Your task to perform on an android device: move an email to a new category in the gmail app Image 0: 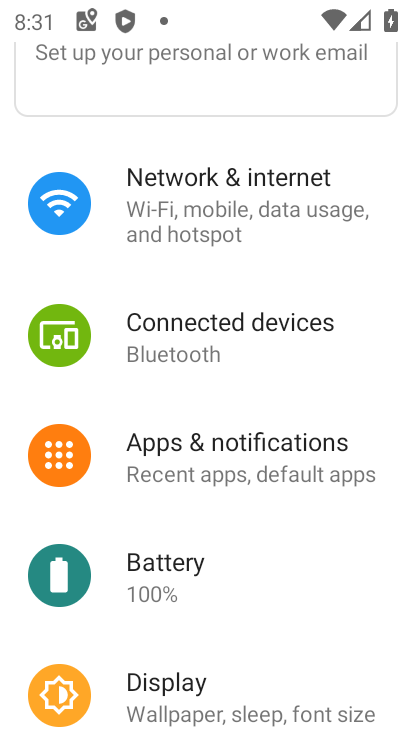
Step 0: press home button
Your task to perform on an android device: move an email to a new category in the gmail app Image 1: 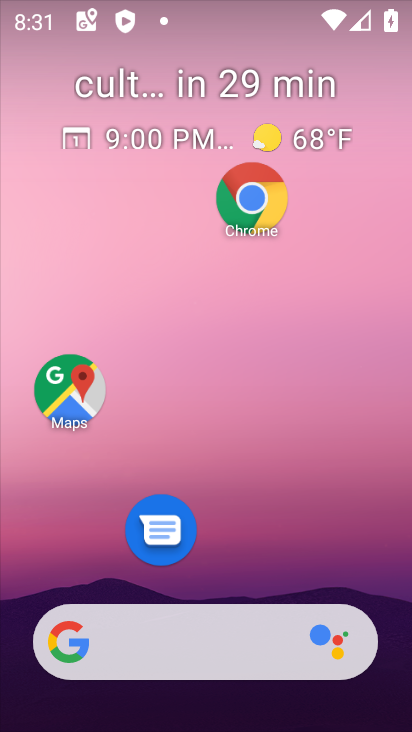
Step 1: drag from (236, 574) to (216, 211)
Your task to perform on an android device: move an email to a new category in the gmail app Image 2: 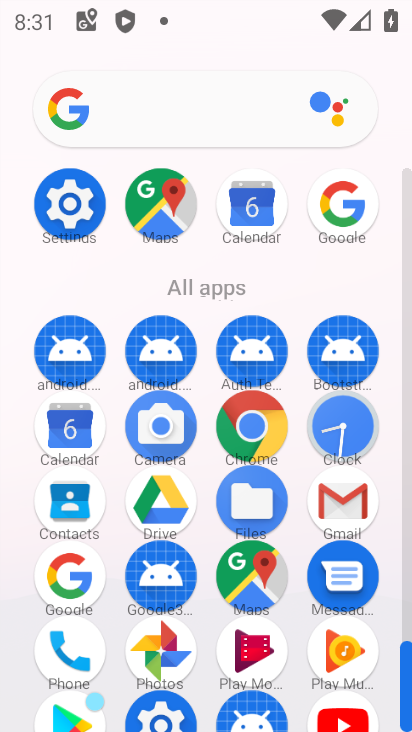
Step 2: click (333, 510)
Your task to perform on an android device: move an email to a new category in the gmail app Image 3: 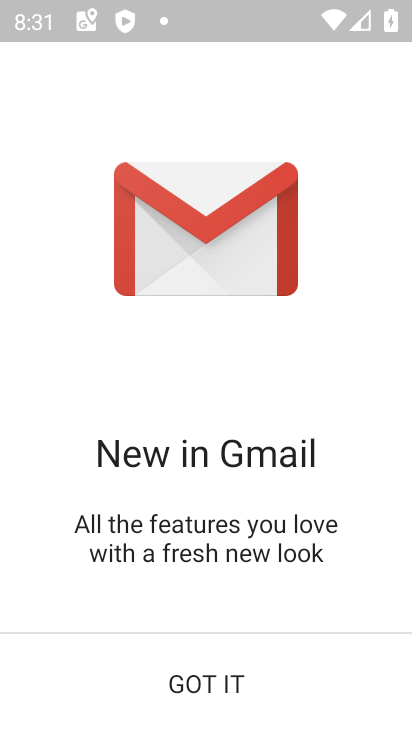
Step 3: click (249, 657)
Your task to perform on an android device: move an email to a new category in the gmail app Image 4: 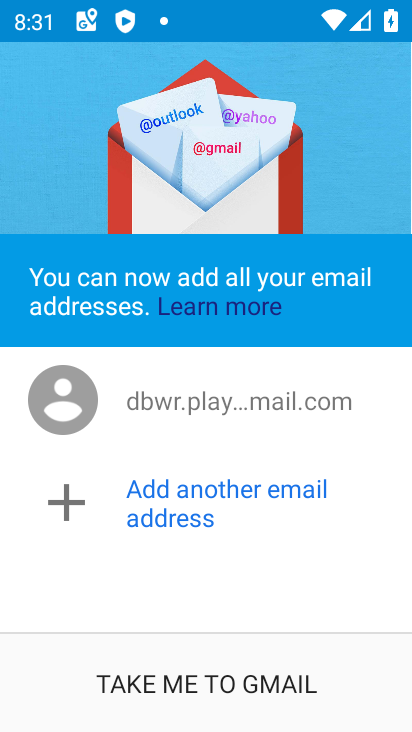
Step 4: click (249, 657)
Your task to perform on an android device: move an email to a new category in the gmail app Image 5: 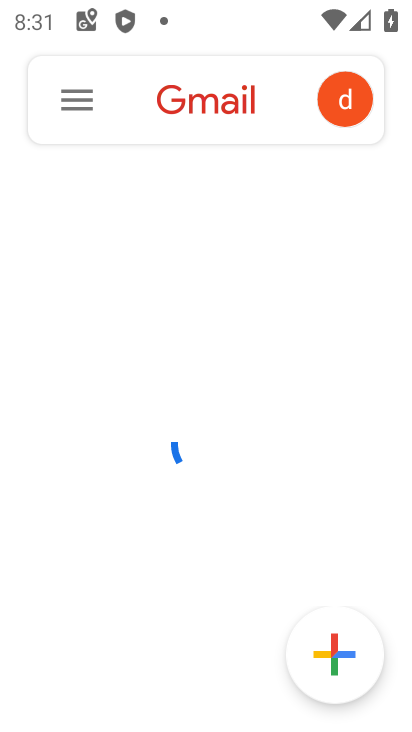
Step 5: click (68, 98)
Your task to perform on an android device: move an email to a new category in the gmail app Image 6: 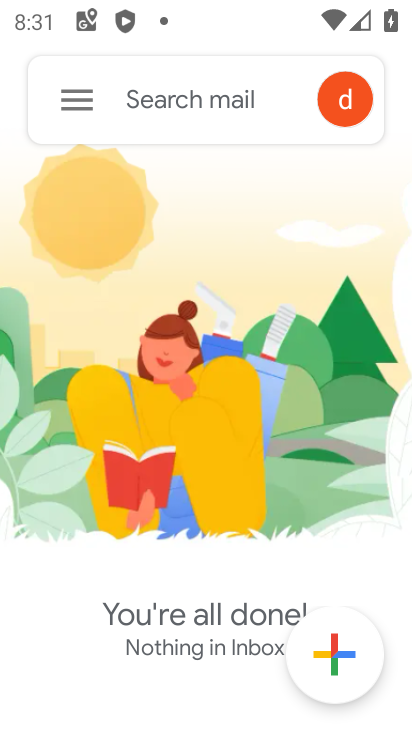
Step 6: click (85, 109)
Your task to perform on an android device: move an email to a new category in the gmail app Image 7: 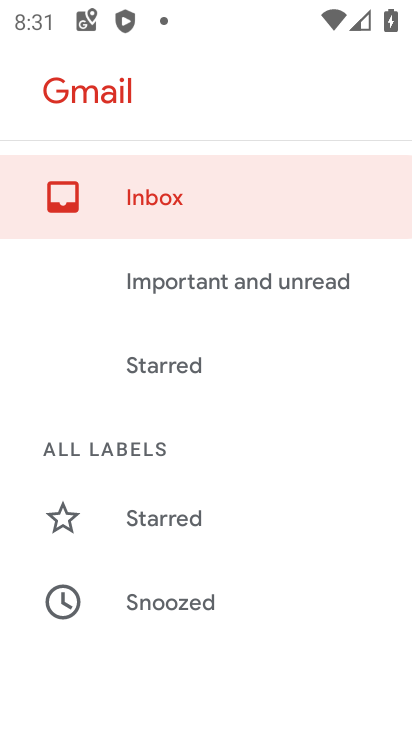
Step 7: drag from (242, 627) to (257, 374)
Your task to perform on an android device: move an email to a new category in the gmail app Image 8: 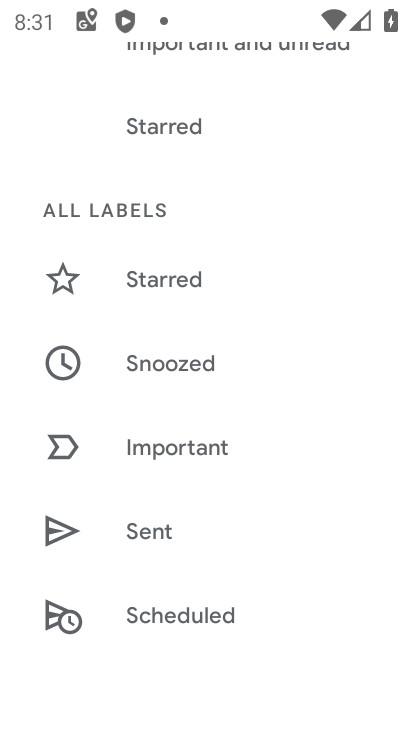
Step 8: drag from (229, 525) to (230, 220)
Your task to perform on an android device: move an email to a new category in the gmail app Image 9: 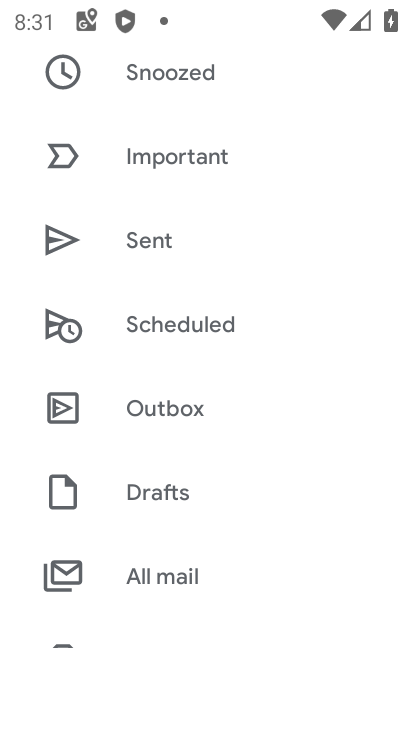
Step 9: drag from (216, 511) to (243, 336)
Your task to perform on an android device: move an email to a new category in the gmail app Image 10: 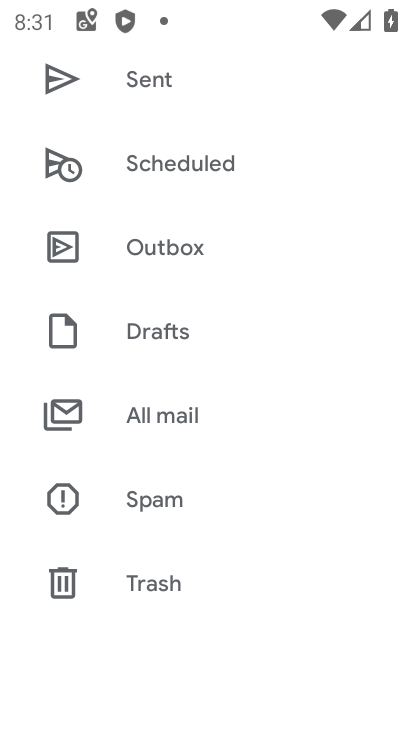
Step 10: click (210, 400)
Your task to perform on an android device: move an email to a new category in the gmail app Image 11: 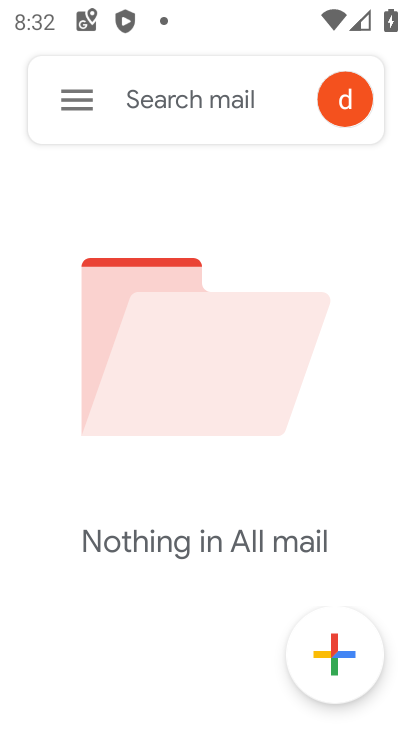
Step 11: task complete